Your task to perform on an android device: Open Android settings Image 0: 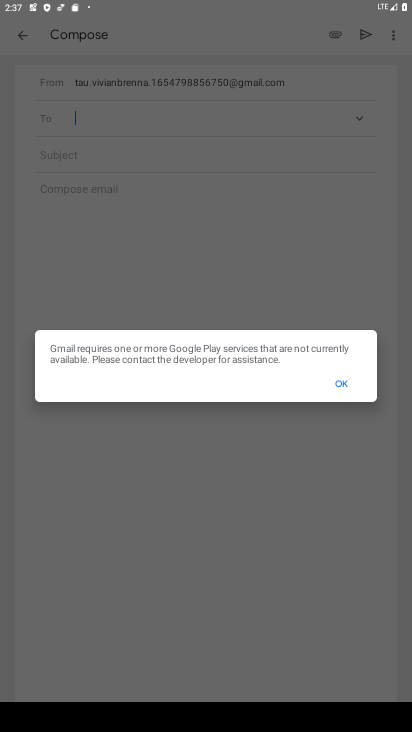
Step 0: drag from (378, 659) to (329, 212)
Your task to perform on an android device: Open Android settings Image 1: 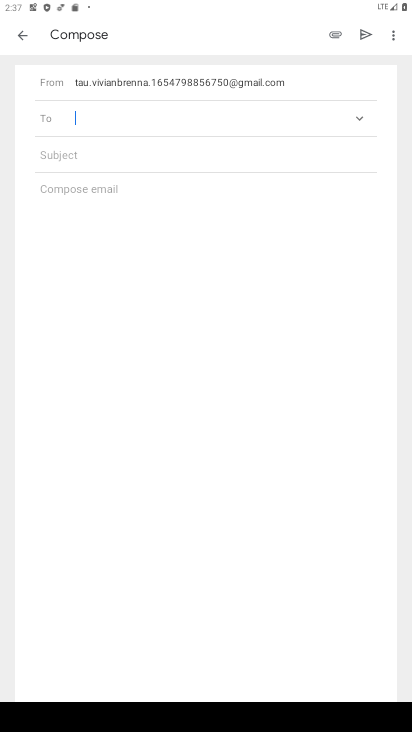
Step 1: press home button
Your task to perform on an android device: Open Android settings Image 2: 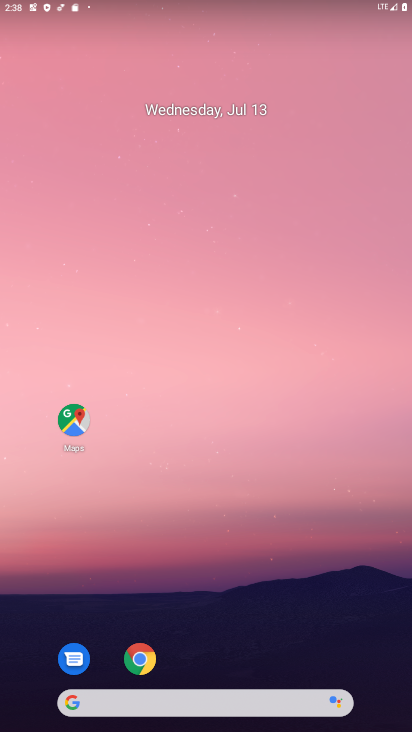
Step 2: drag from (370, 663) to (320, 195)
Your task to perform on an android device: Open Android settings Image 3: 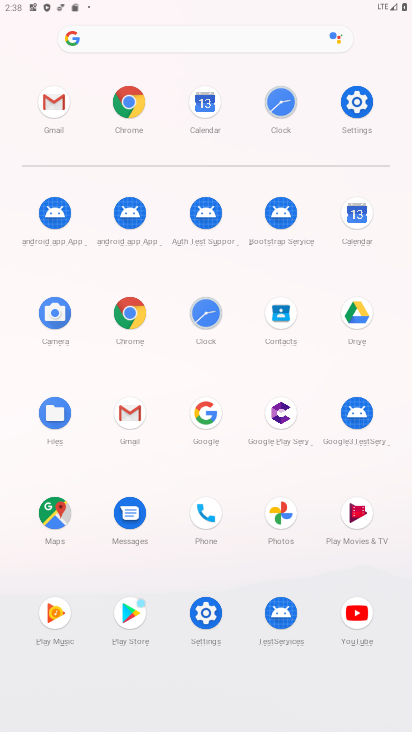
Step 3: click (205, 611)
Your task to perform on an android device: Open Android settings Image 4: 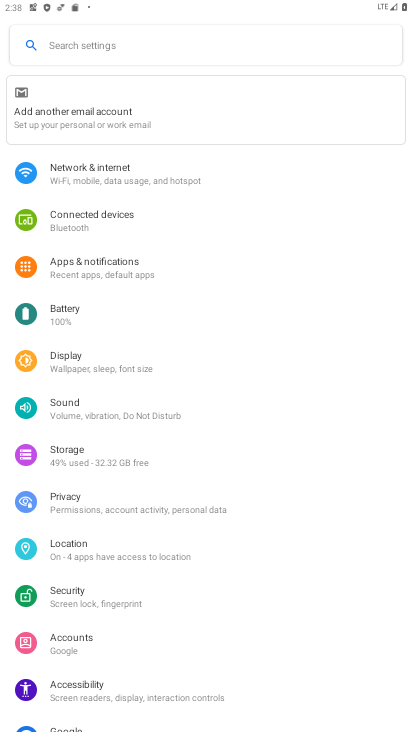
Step 4: drag from (269, 683) to (275, 266)
Your task to perform on an android device: Open Android settings Image 5: 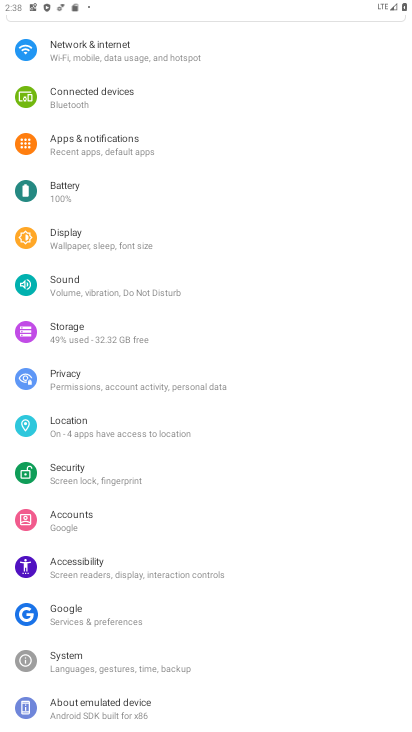
Step 5: click (75, 705)
Your task to perform on an android device: Open Android settings Image 6: 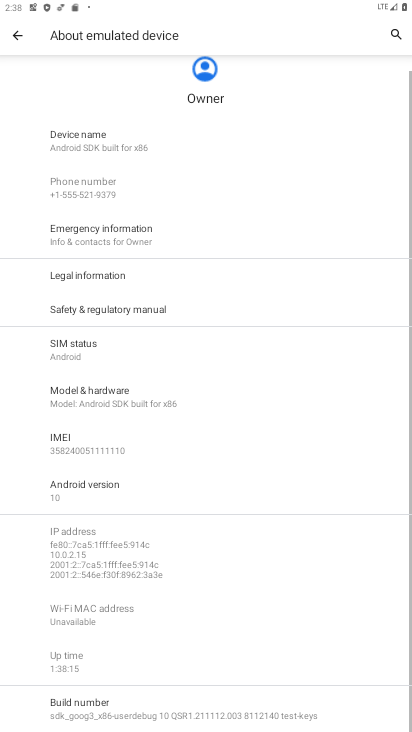
Step 6: task complete